Your task to perform on an android device: open sync settings in chrome Image 0: 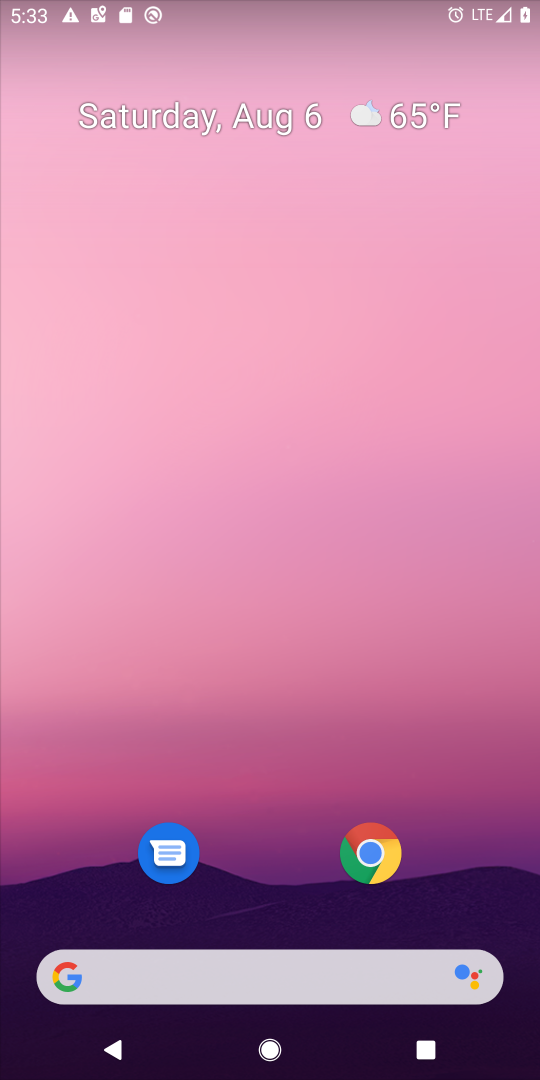
Step 0: click (367, 845)
Your task to perform on an android device: open sync settings in chrome Image 1: 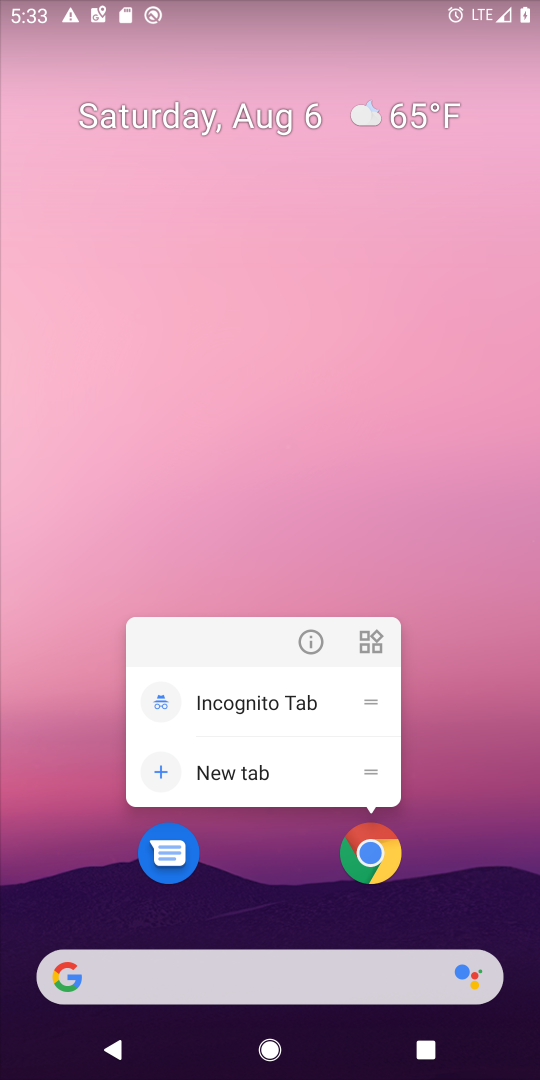
Step 1: click (376, 852)
Your task to perform on an android device: open sync settings in chrome Image 2: 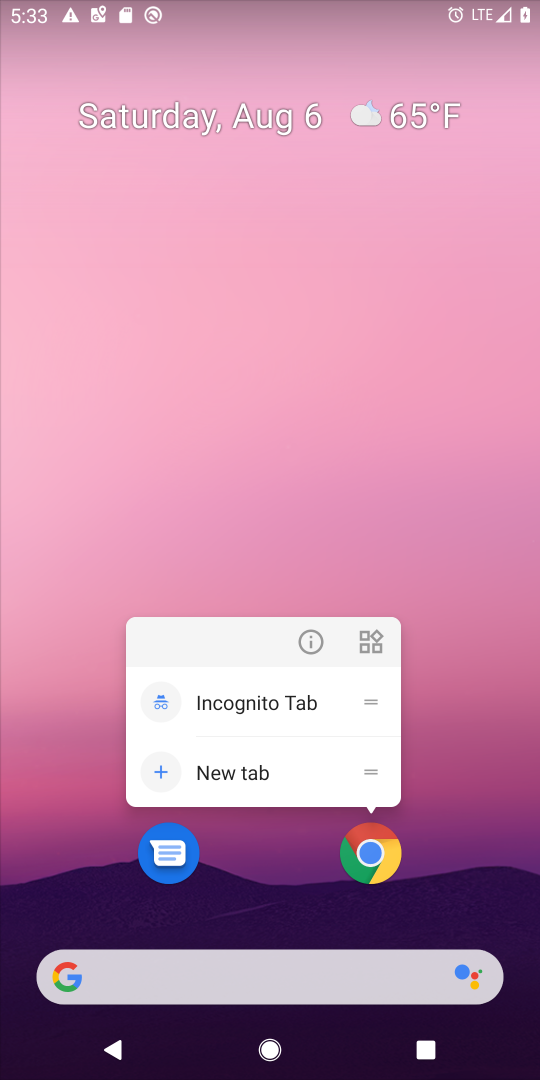
Step 2: click (386, 856)
Your task to perform on an android device: open sync settings in chrome Image 3: 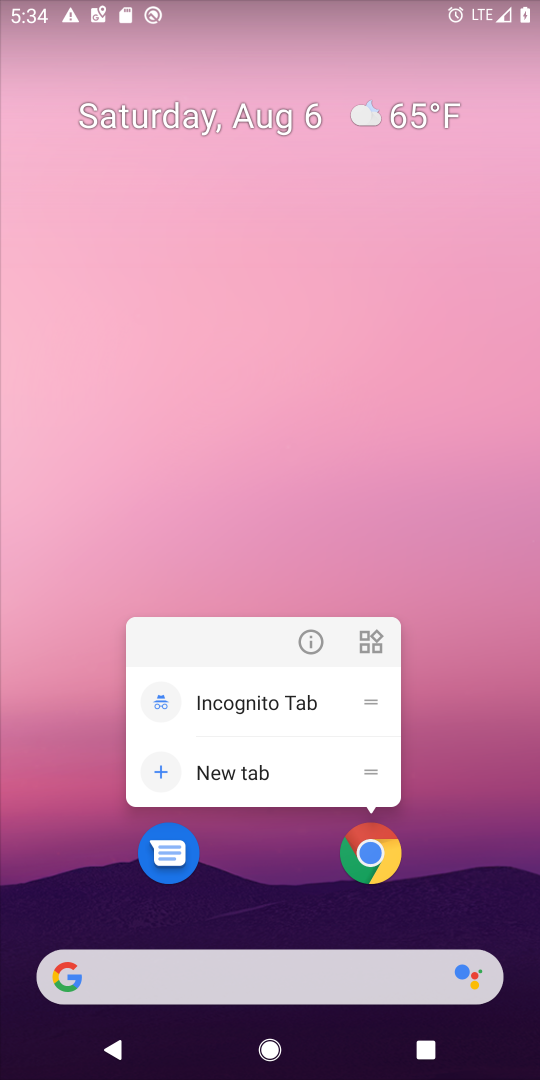
Step 3: click (386, 858)
Your task to perform on an android device: open sync settings in chrome Image 4: 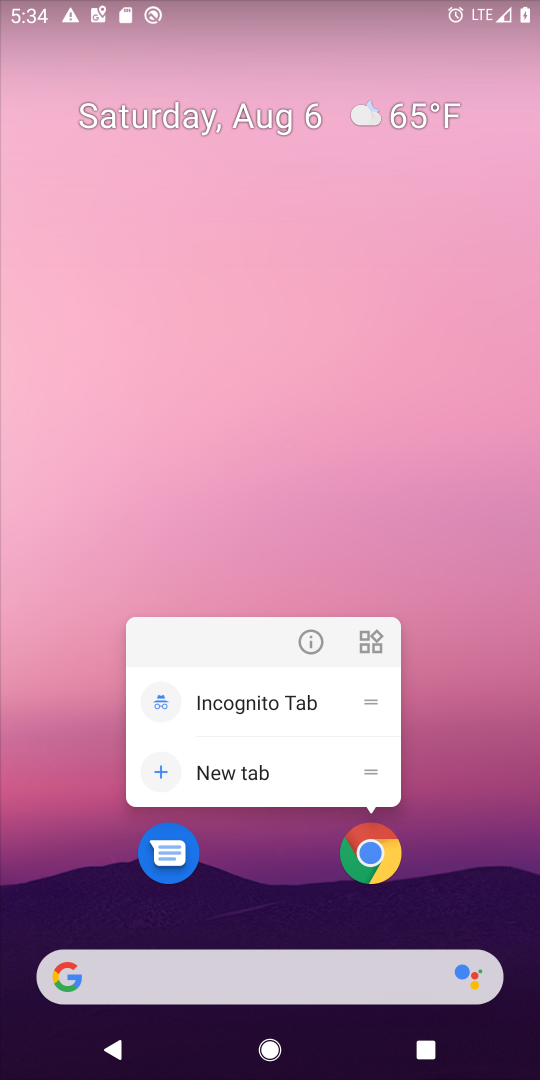
Step 4: click (382, 864)
Your task to perform on an android device: open sync settings in chrome Image 5: 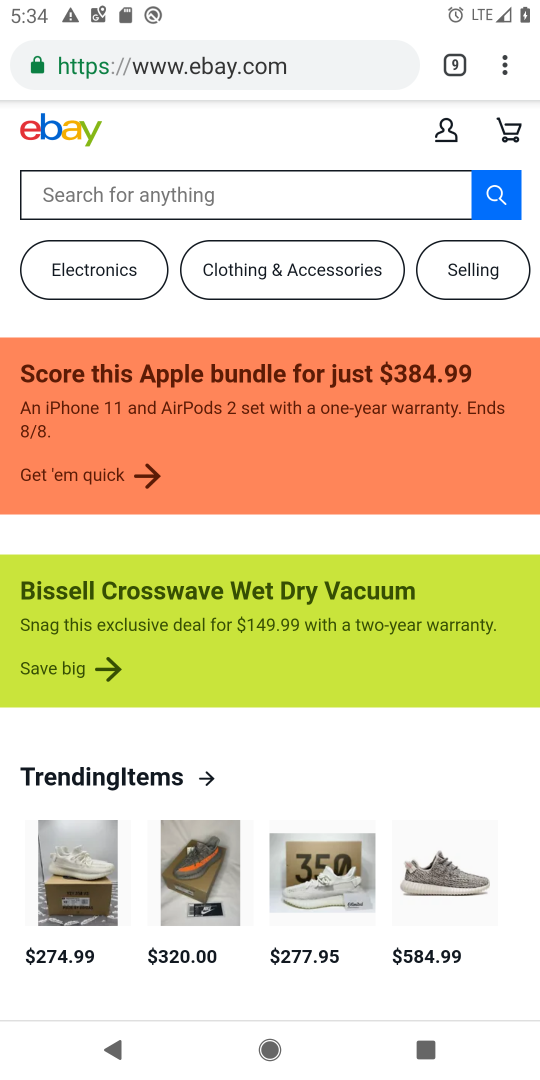
Step 5: drag from (504, 62) to (320, 804)
Your task to perform on an android device: open sync settings in chrome Image 6: 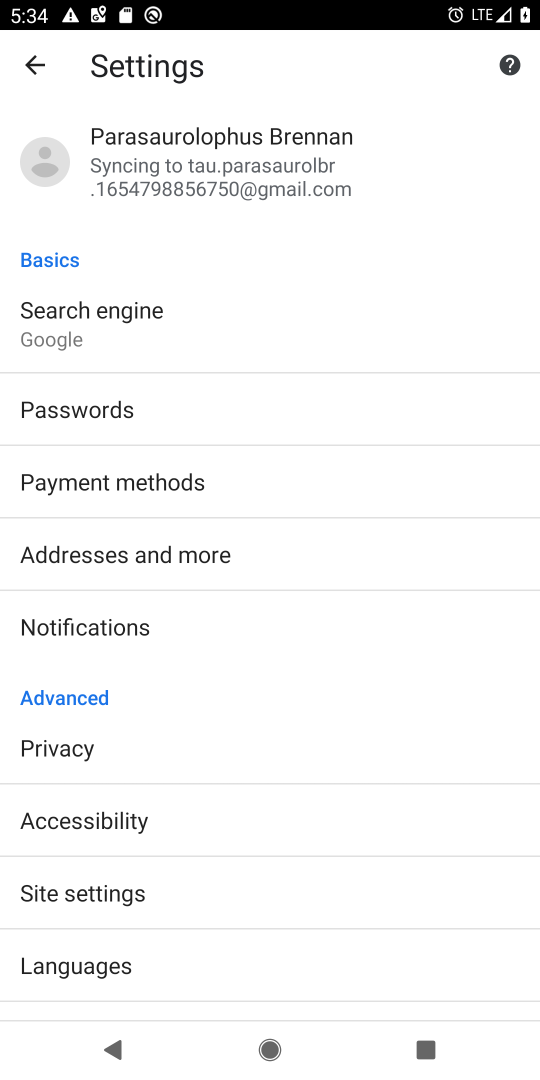
Step 6: click (181, 135)
Your task to perform on an android device: open sync settings in chrome Image 7: 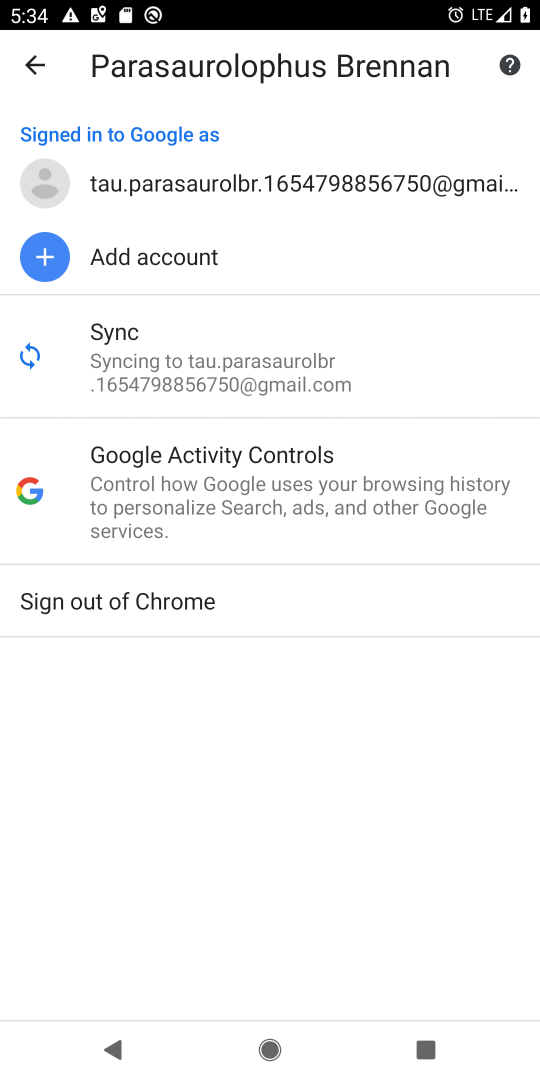
Step 7: task complete